Your task to perform on an android device: Open accessibility settings Image 0: 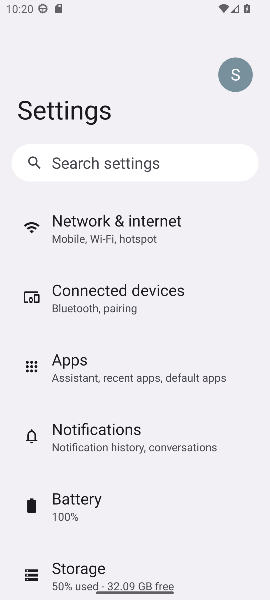
Step 0: drag from (177, 476) to (186, 174)
Your task to perform on an android device: Open accessibility settings Image 1: 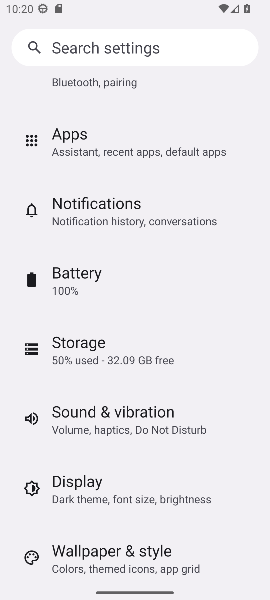
Step 1: drag from (134, 494) to (140, 226)
Your task to perform on an android device: Open accessibility settings Image 2: 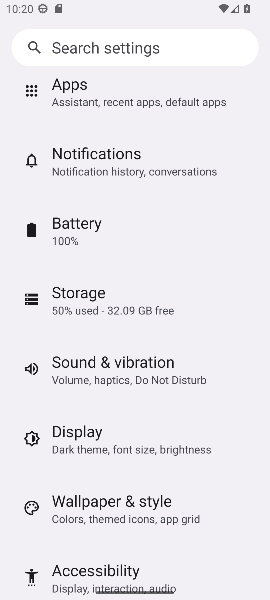
Step 2: click (115, 568)
Your task to perform on an android device: Open accessibility settings Image 3: 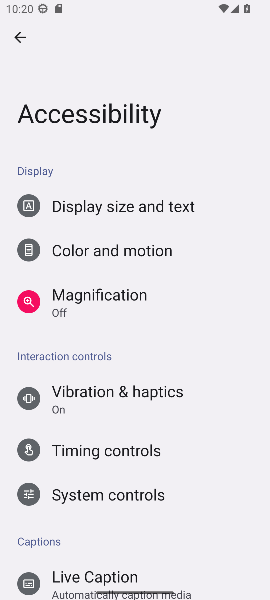
Step 3: task complete